Your task to perform on an android device: turn on wifi Image 0: 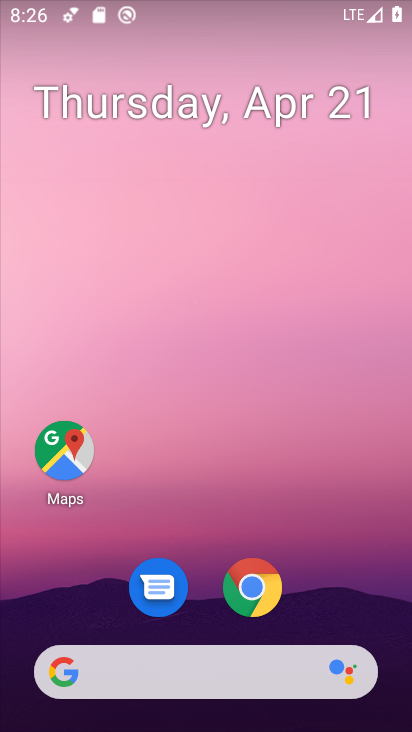
Step 0: drag from (376, 287) to (371, 243)
Your task to perform on an android device: turn on wifi Image 1: 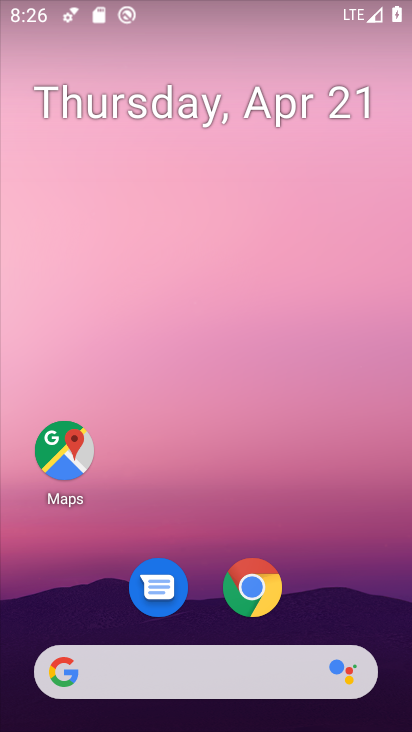
Step 1: click (348, 257)
Your task to perform on an android device: turn on wifi Image 2: 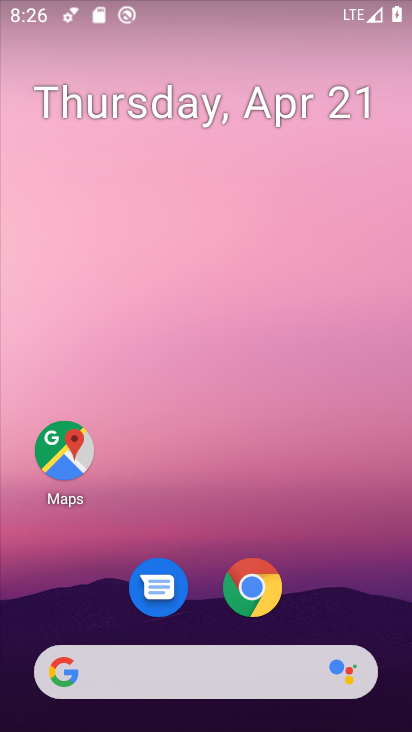
Step 2: drag from (382, 605) to (349, 127)
Your task to perform on an android device: turn on wifi Image 3: 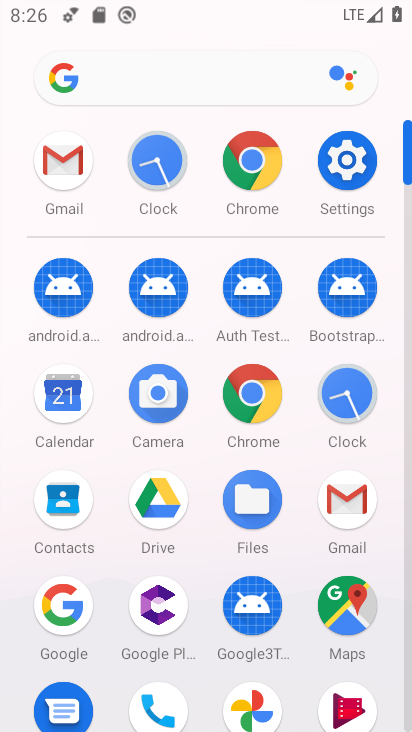
Step 3: click (346, 158)
Your task to perform on an android device: turn on wifi Image 4: 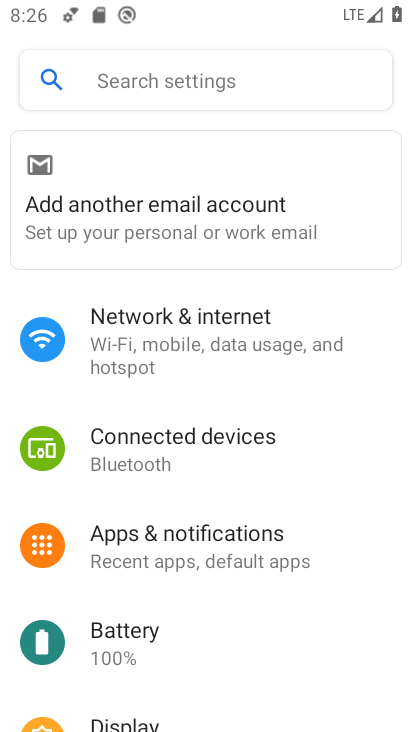
Step 4: click (138, 332)
Your task to perform on an android device: turn on wifi Image 5: 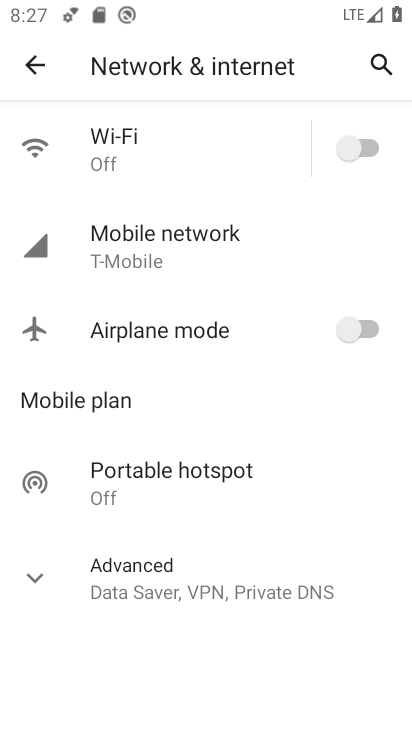
Step 5: click (364, 143)
Your task to perform on an android device: turn on wifi Image 6: 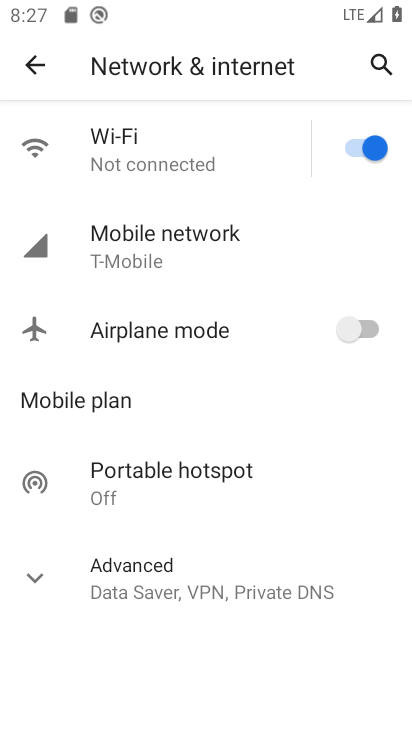
Step 6: task complete